Your task to perform on an android device: turn vacation reply on in the gmail app Image 0: 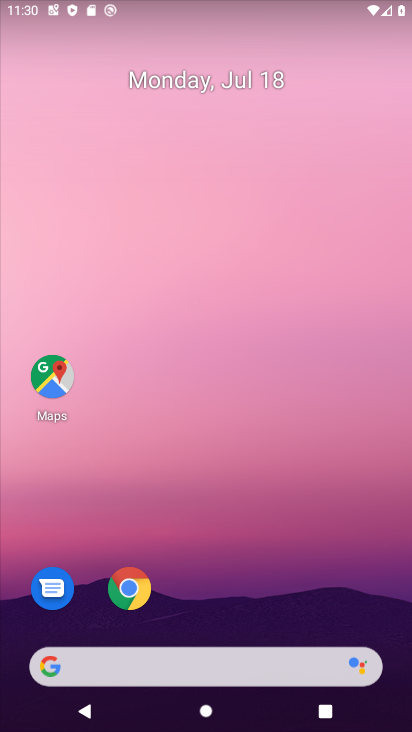
Step 0: drag from (207, 635) to (264, 116)
Your task to perform on an android device: turn vacation reply on in the gmail app Image 1: 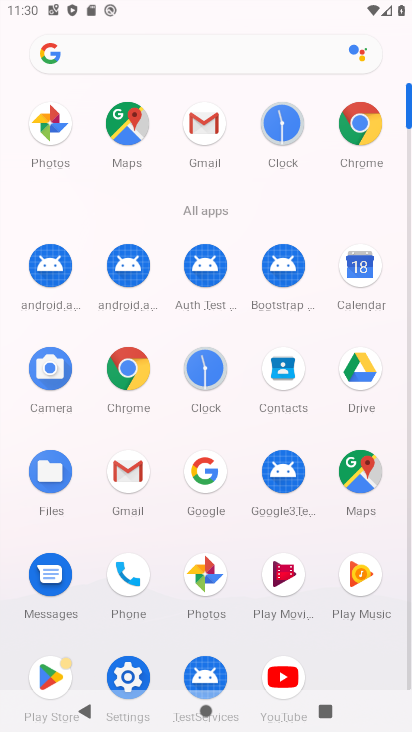
Step 1: click (127, 468)
Your task to perform on an android device: turn vacation reply on in the gmail app Image 2: 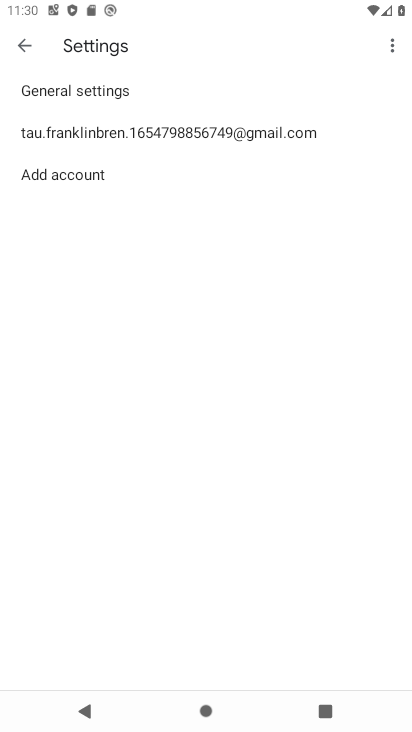
Step 2: click (70, 130)
Your task to perform on an android device: turn vacation reply on in the gmail app Image 3: 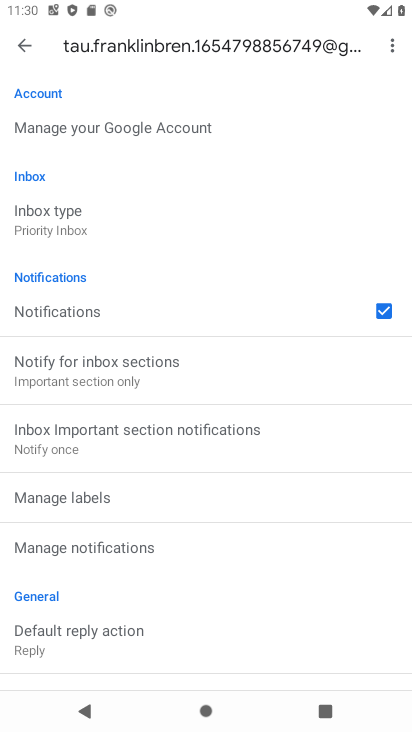
Step 3: drag from (142, 658) to (155, 183)
Your task to perform on an android device: turn vacation reply on in the gmail app Image 4: 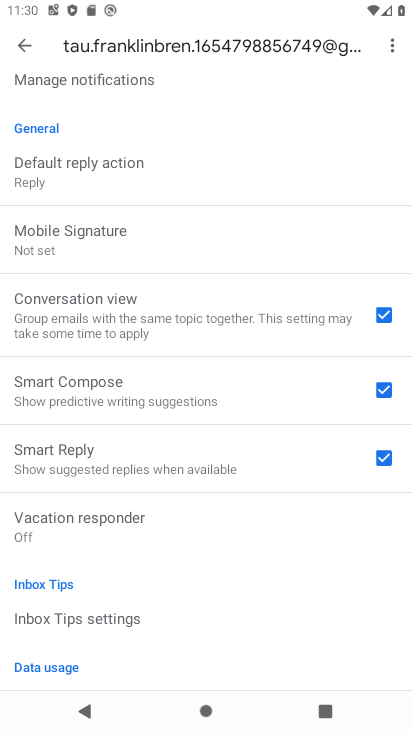
Step 4: click (82, 526)
Your task to perform on an android device: turn vacation reply on in the gmail app Image 5: 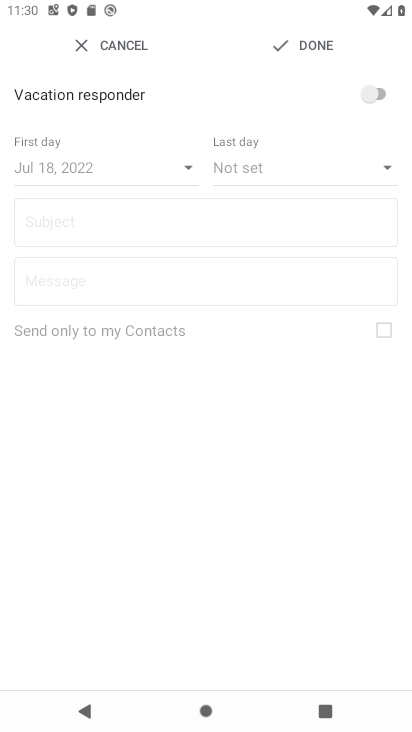
Step 5: click (373, 88)
Your task to perform on an android device: turn vacation reply on in the gmail app Image 6: 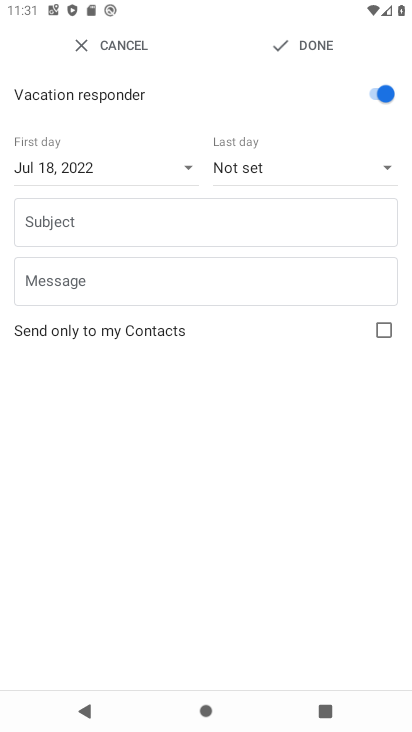
Step 6: click (318, 44)
Your task to perform on an android device: turn vacation reply on in the gmail app Image 7: 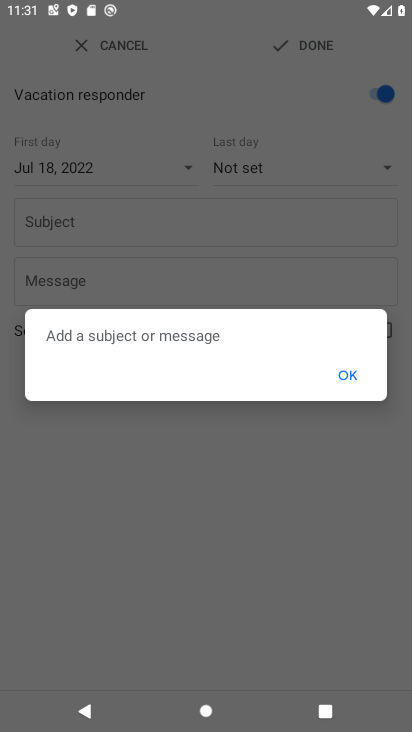
Step 7: click (350, 376)
Your task to perform on an android device: turn vacation reply on in the gmail app Image 8: 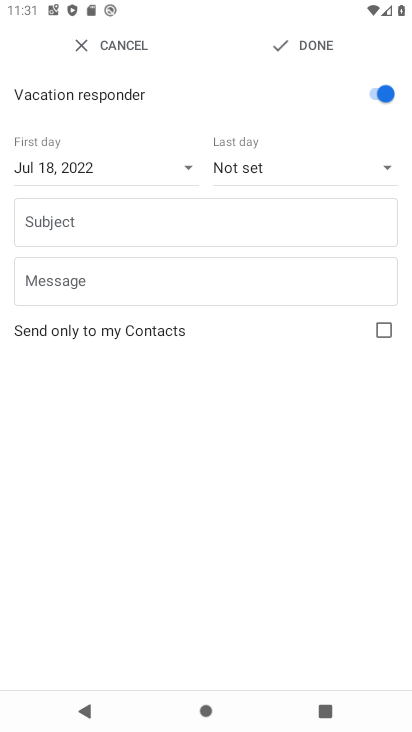
Step 8: task complete